Your task to perform on an android device: Open settings Image 0: 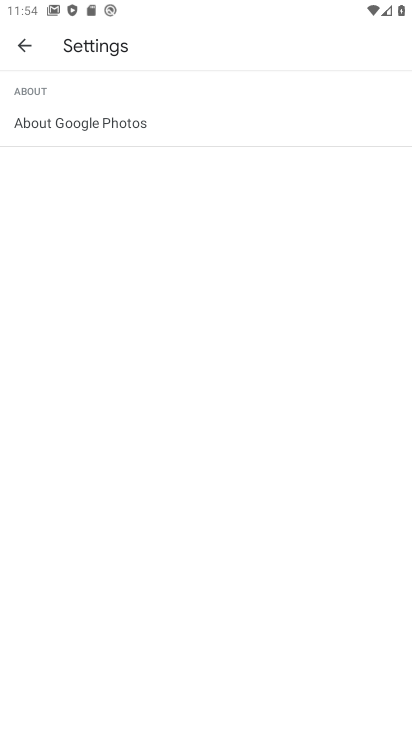
Step 0: press home button
Your task to perform on an android device: Open settings Image 1: 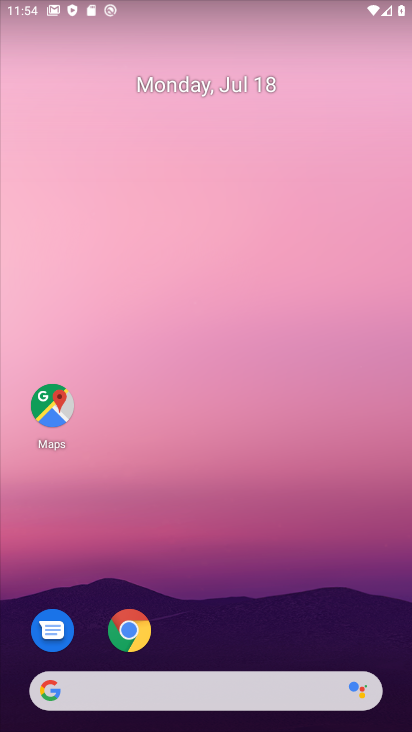
Step 1: click (50, 400)
Your task to perform on an android device: Open settings Image 2: 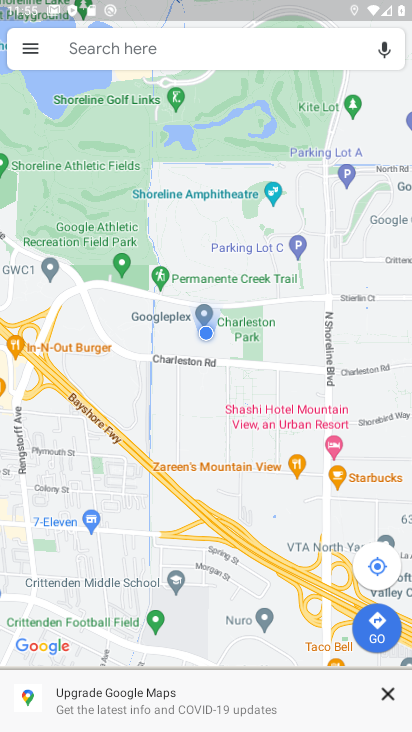
Step 2: press home button
Your task to perform on an android device: Open settings Image 3: 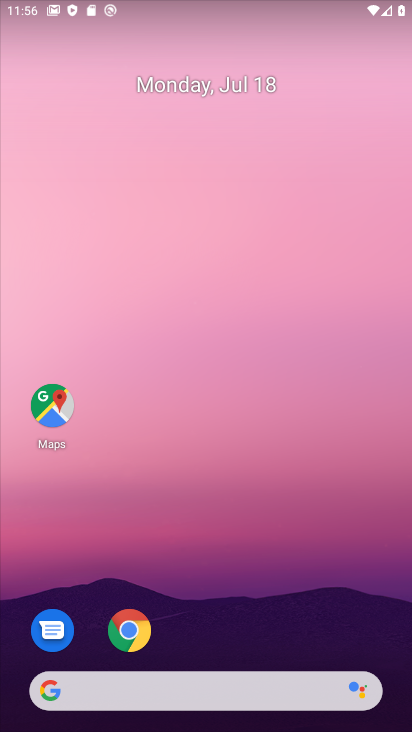
Step 3: drag from (250, 578) to (303, 234)
Your task to perform on an android device: Open settings Image 4: 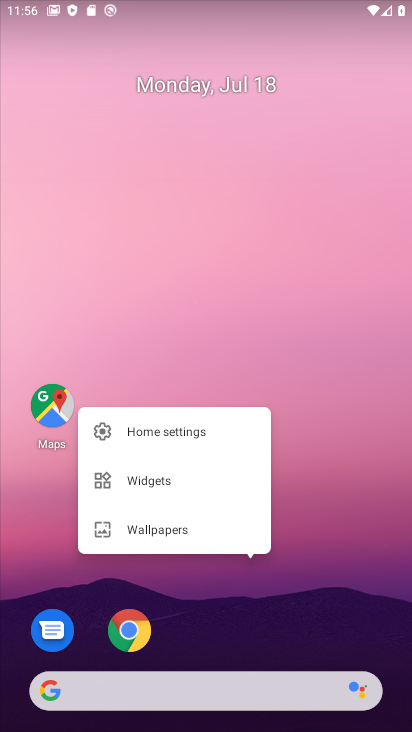
Step 4: click (327, 272)
Your task to perform on an android device: Open settings Image 5: 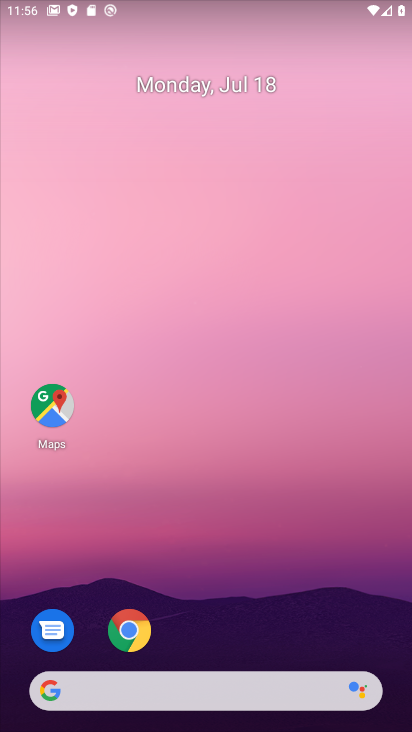
Step 5: drag from (218, 571) to (276, 243)
Your task to perform on an android device: Open settings Image 6: 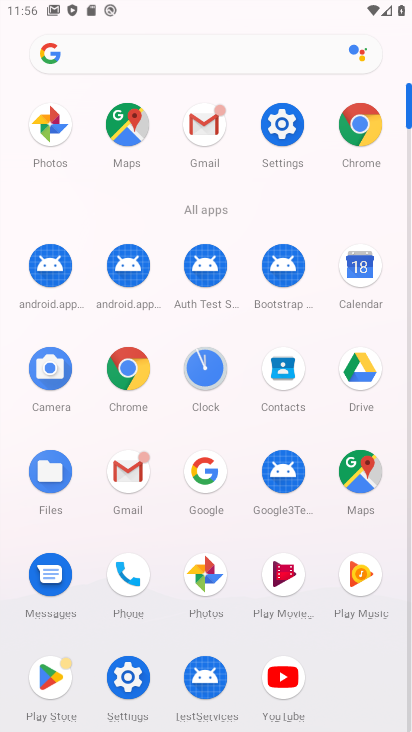
Step 6: click (252, 496)
Your task to perform on an android device: Open settings Image 7: 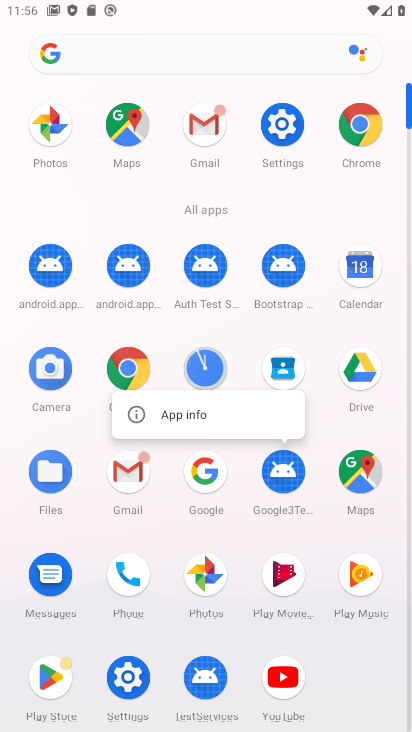
Step 7: click (287, 123)
Your task to perform on an android device: Open settings Image 8: 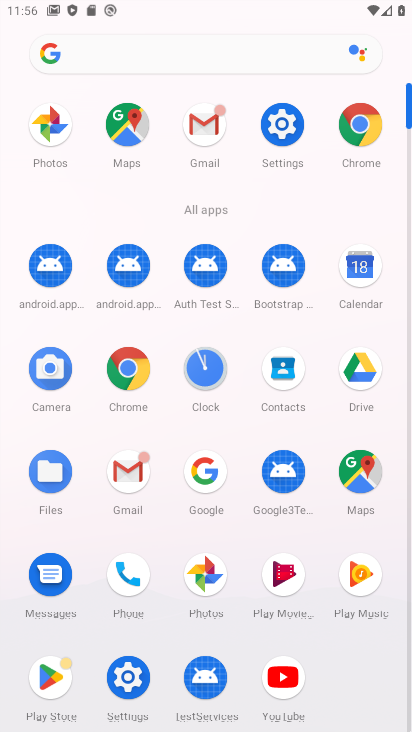
Step 8: click (287, 123)
Your task to perform on an android device: Open settings Image 9: 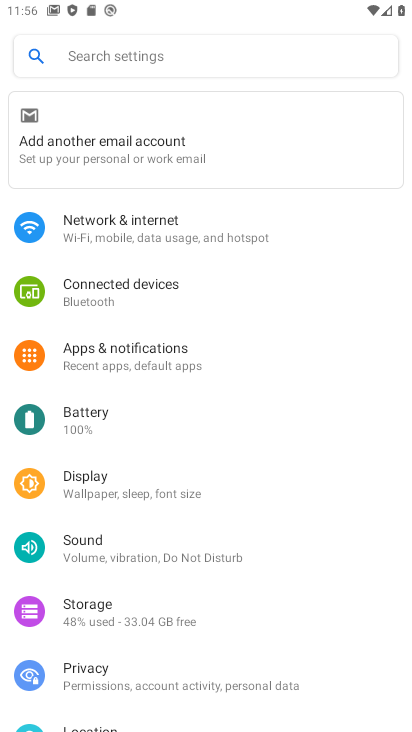
Step 9: task complete